Your task to perform on an android device: Open CNN.com Image 0: 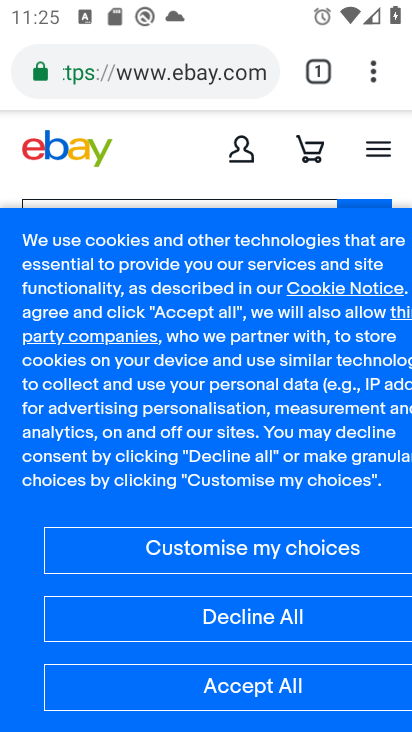
Step 0: drag from (265, 586) to (324, 372)
Your task to perform on an android device: Open CNN.com Image 1: 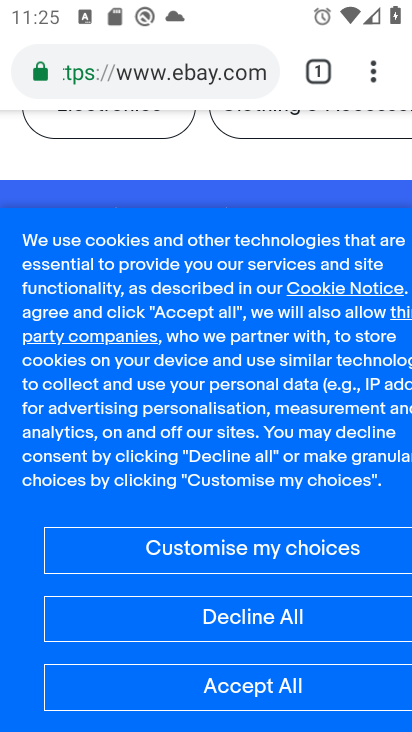
Step 1: press home button
Your task to perform on an android device: Open CNN.com Image 2: 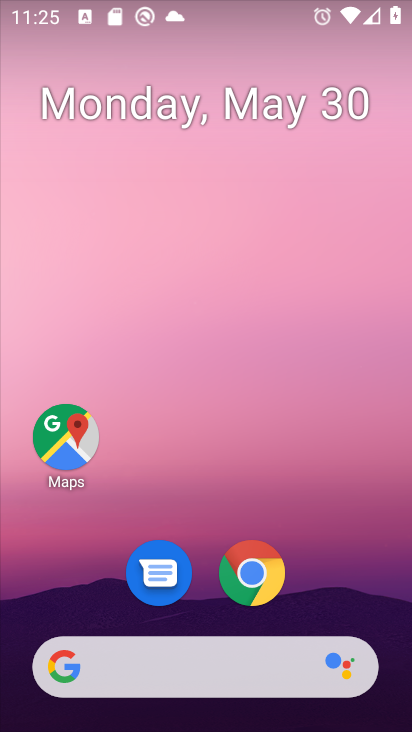
Step 2: click (253, 579)
Your task to perform on an android device: Open CNN.com Image 3: 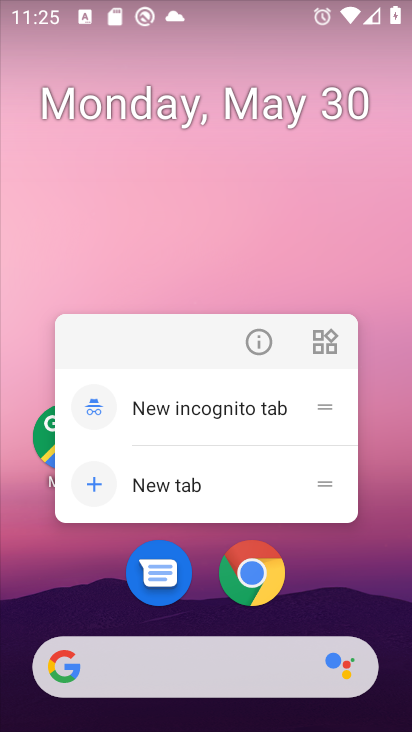
Step 3: click (253, 579)
Your task to perform on an android device: Open CNN.com Image 4: 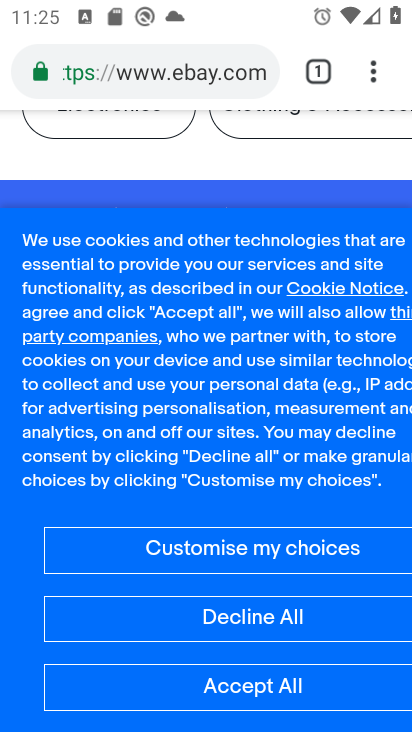
Step 4: click (255, 75)
Your task to perform on an android device: Open CNN.com Image 5: 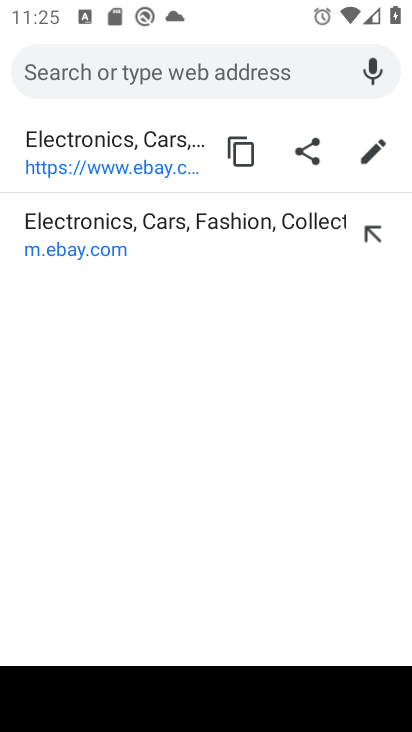
Step 5: type "cnn"
Your task to perform on an android device: Open CNN.com Image 6: 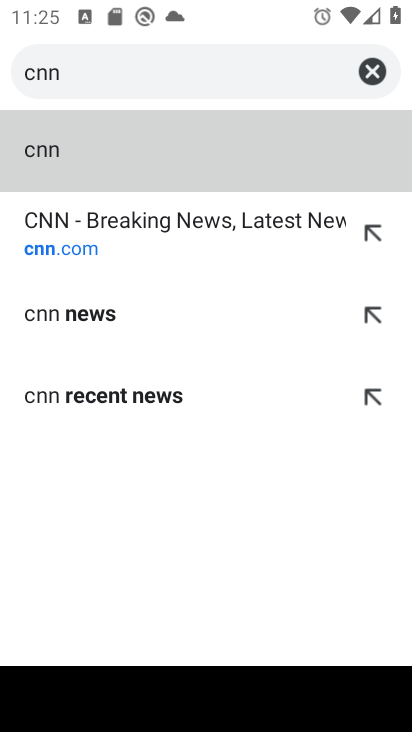
Step 6: click (147, 251)
Your task to perform on an android device: Open CNN.com Image 7: 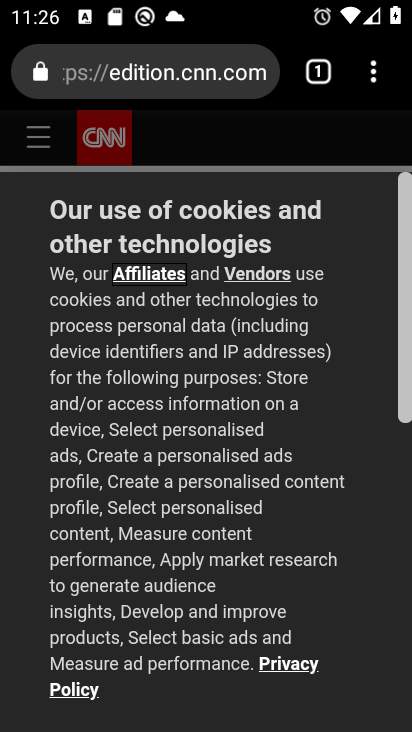
Step 7: task complete